Your task to perform on an android device: Show me productivity apps on the Play Store Image 0: 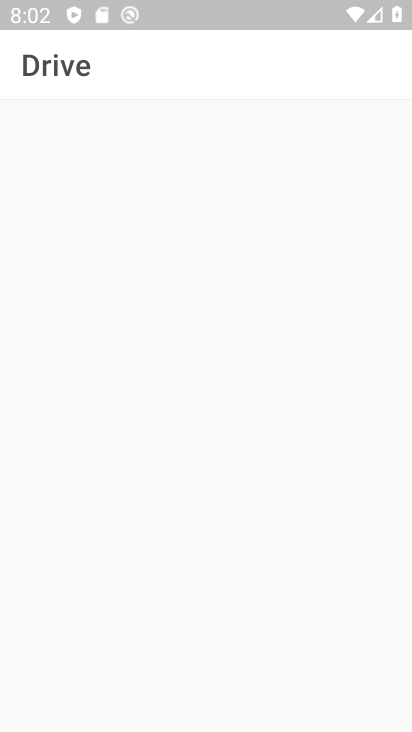
Step 0: press home button
Your task to perform on an android device: Show me productivity apps on the Play Store Image 1: 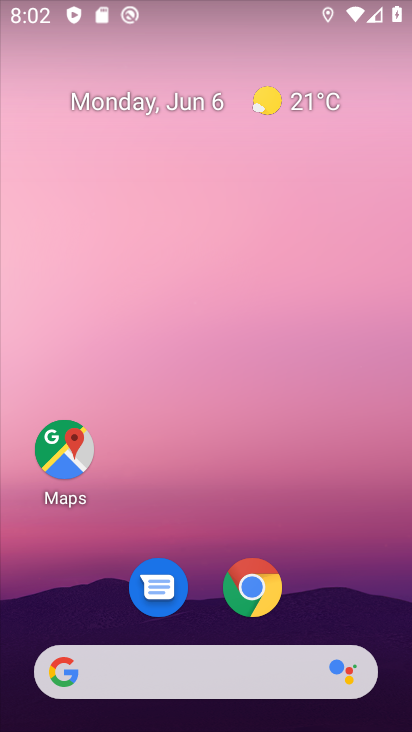
Step 1: drag from (316, 590) to (263, 135)
Your task to perform on an android device: Show me productivity apps on the Play Store Image 2: 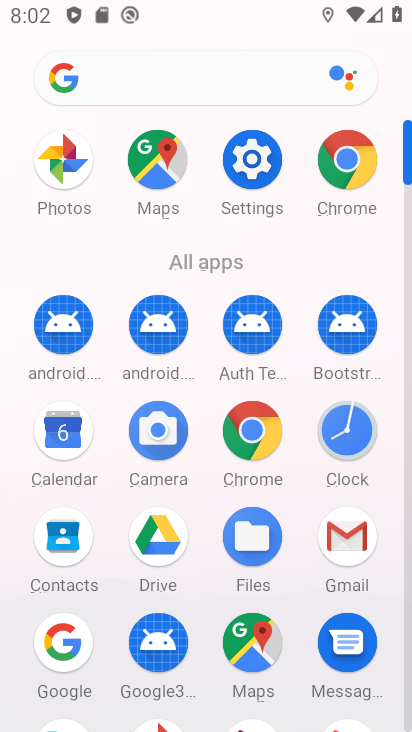
Step 2: drag from (215, 556) to (205, 172)
Your task to perform on an android device: Show me productivity apps on the Play Store Image 3: 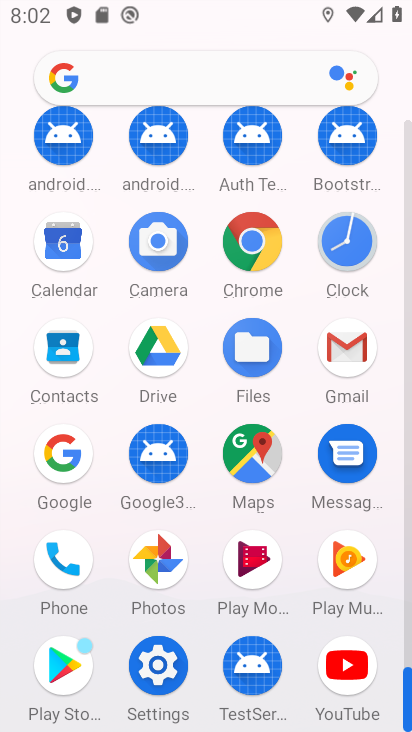
Step 3: click (69, 646)
Your task to perform on an android device: Show me productivity apps on the Play Store Image 4: 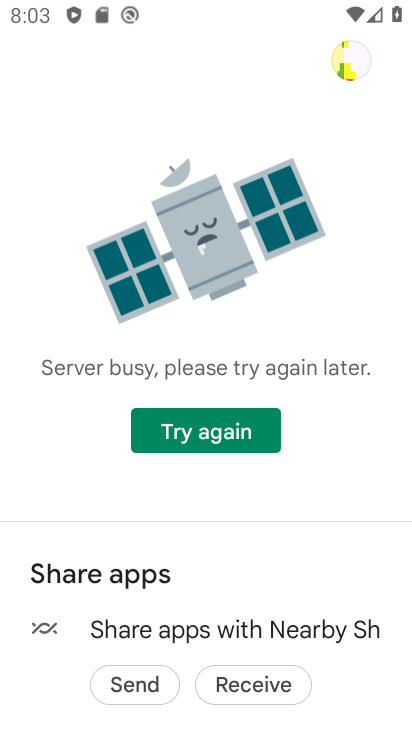
Step 4: click (244, 435)
Your task to perform on an android device: Show me productivity apps on the Play Store Image 5: 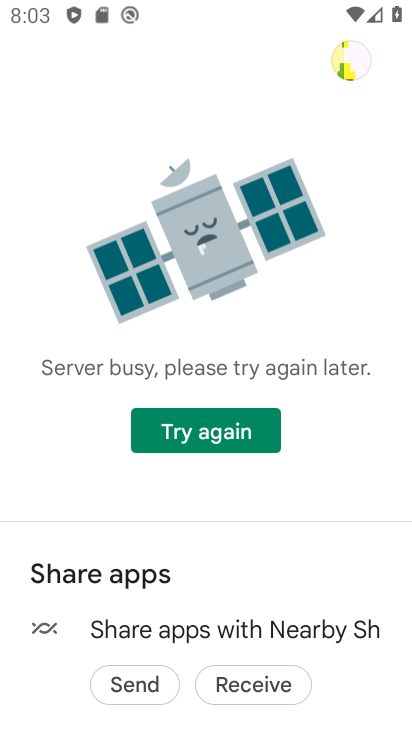
Step 5: task complete